Your task to perform on an android device: turn on priority inbox in the gmail app Image 0: 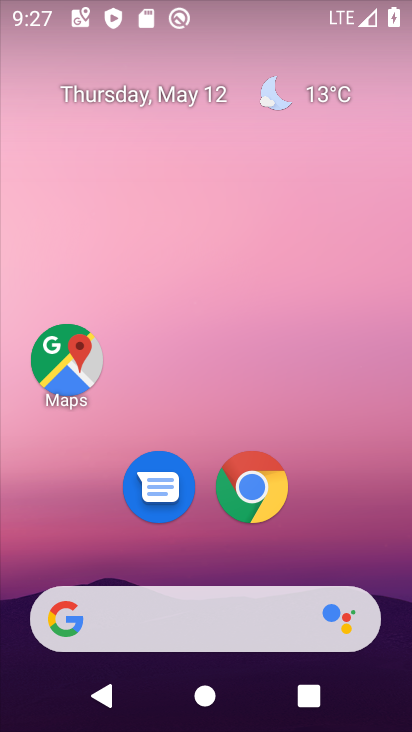
Step 0: drag from (384, 572) to (389, 5)
Your task to perform on an android device: turn on priority inbox in the gmail app Image 1: 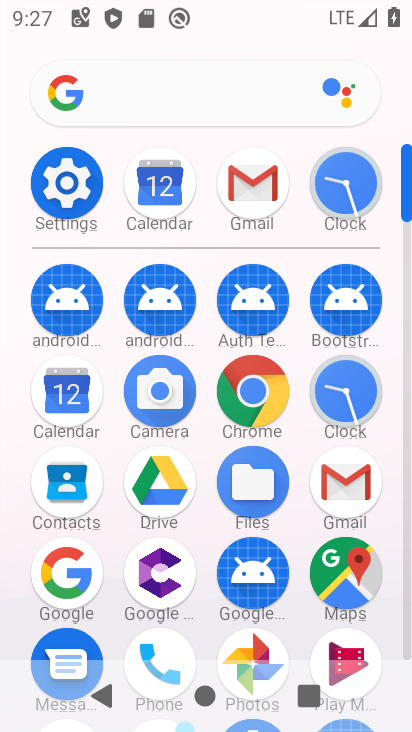
Step 1: click (253, 181)
Your task to perform on an android device: turn on priority inbox in the gmail app Image 2: 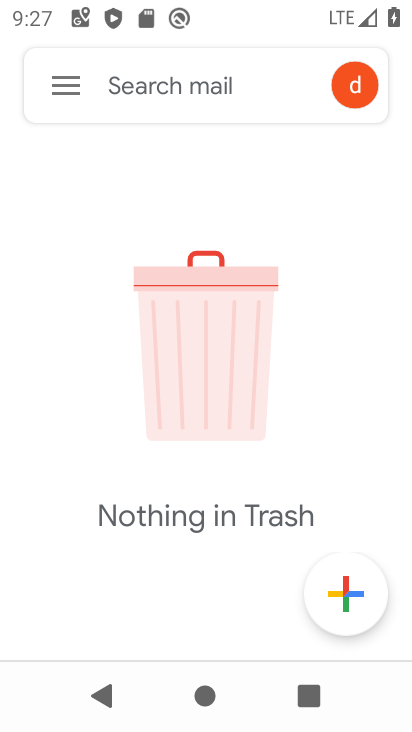
Step 2: click (58, 95)
Your task to perform on an android device: turn on priority inbox in the gmail app Image 3: 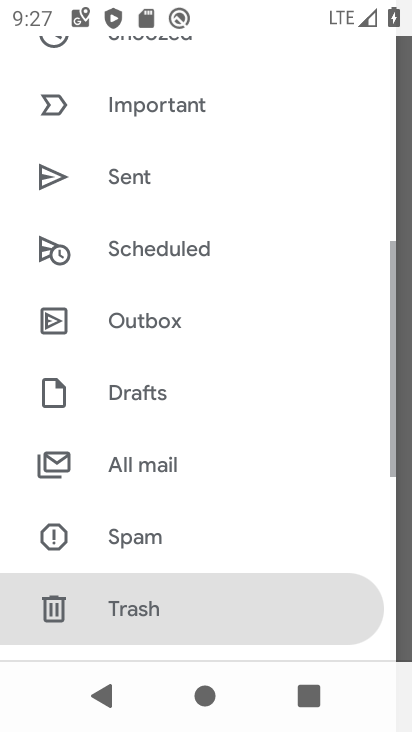
Step 3: drag from (194, 552) to (209, 3)
Your task to perform on an android device: turn on priority inbox in the gmail app Image 4: 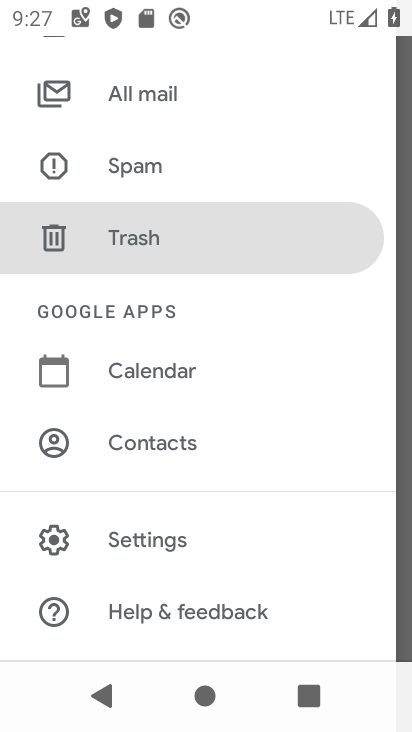
Step 4: click (159, 546)
Your task to perform on an android device: turn on priority inbox in the gmail app Image 5: 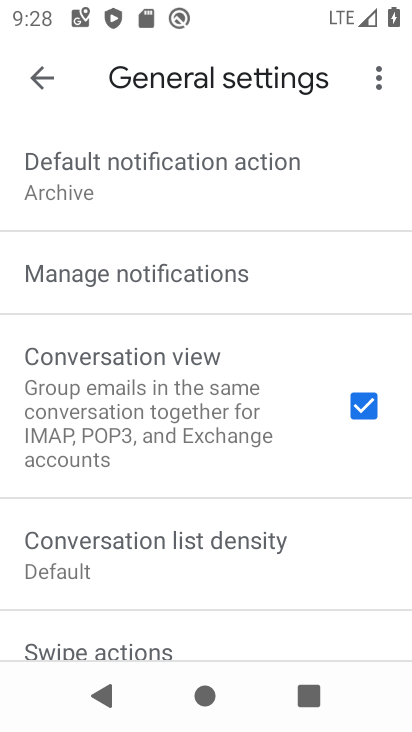
Step 5: click (36, 73)
Your task to perform on an android device: turn on priority inbox in the gmail app Image 6: 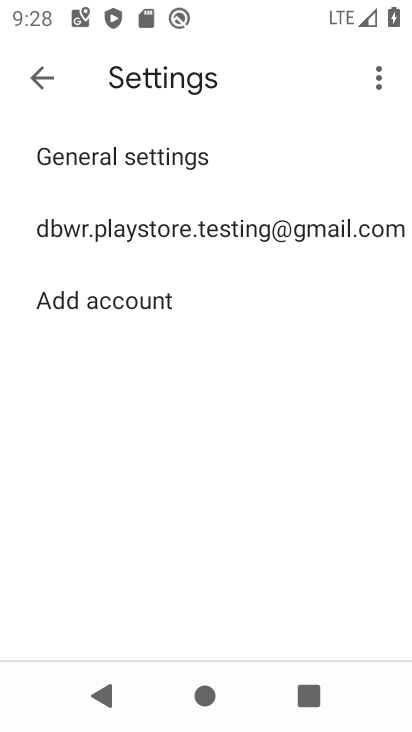
Step 6: click (108, 230)
Your task to perform on an android device: turn on priority inbox in the gmail app Image 7: 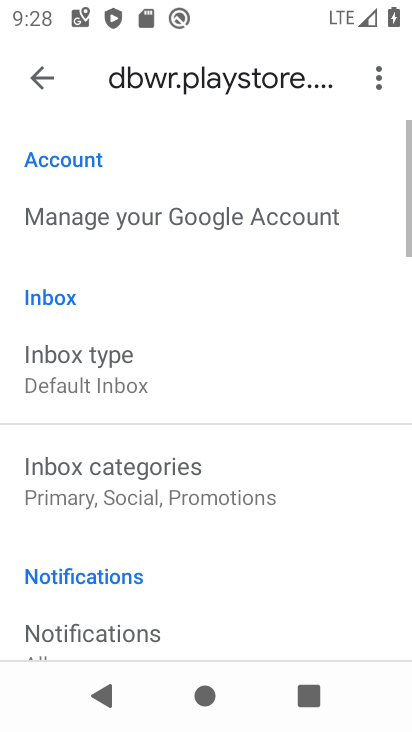
Step 7: drag from (212, 513) to (218, 317)
Your task to perform on an android device: turn on priority inbox in the gmail app Image 8: 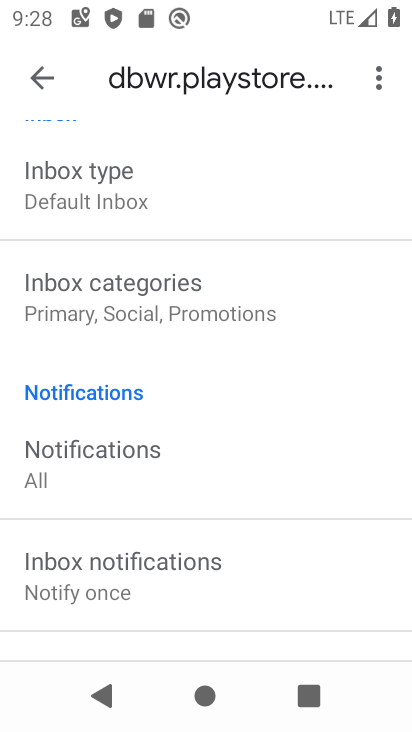
Step 8: click (132, 191)
Your task to perform on an android device: turn on priority inbox in the gmail app Image 9: 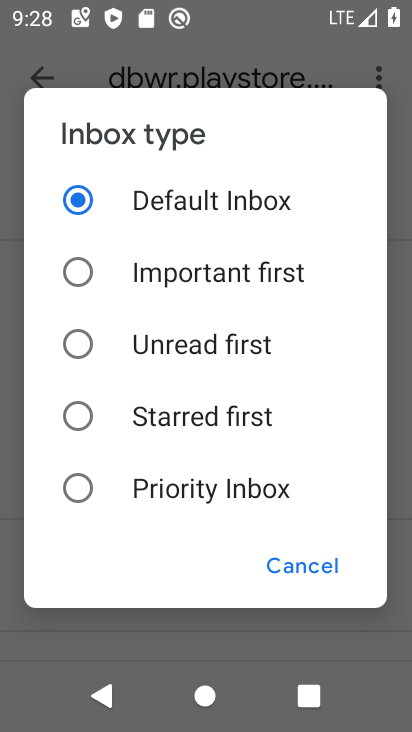
Step 9: click (74, 493)
Your task to perform on an android device: turn on priority inbox in the gmail app Image 10: 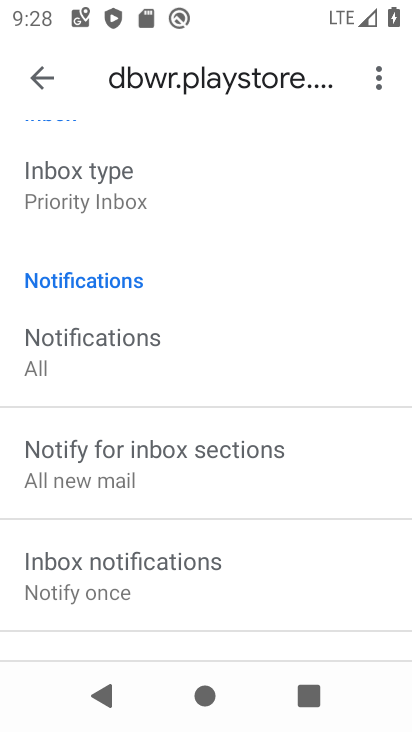
Step 10: task complete